Your task to perform on an android device: turn off location history Image 0: 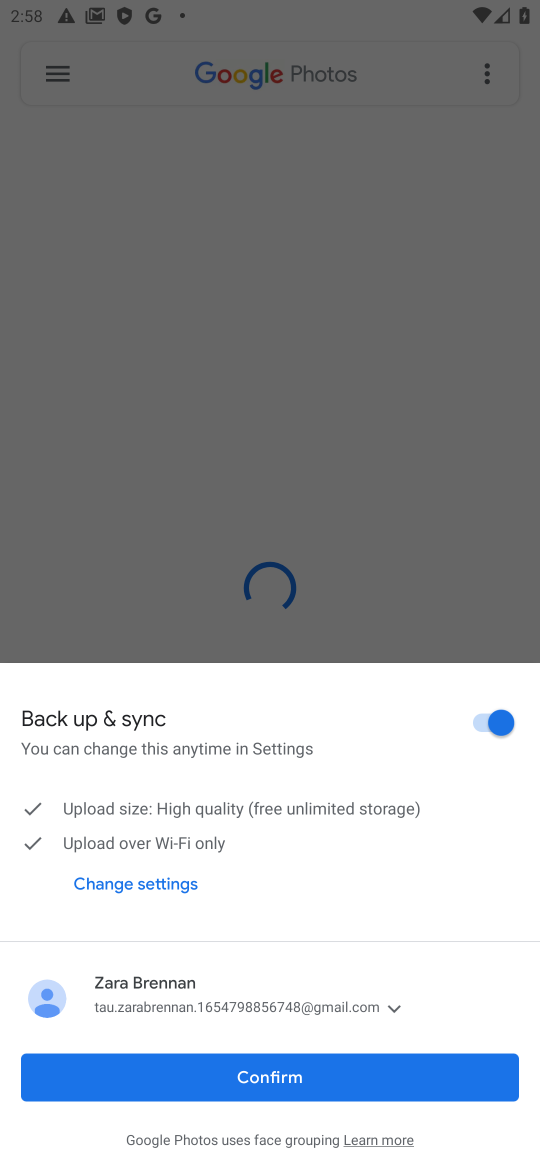
Step 0: press back button
Your task to perform on an android device: turn off location history Image 1: 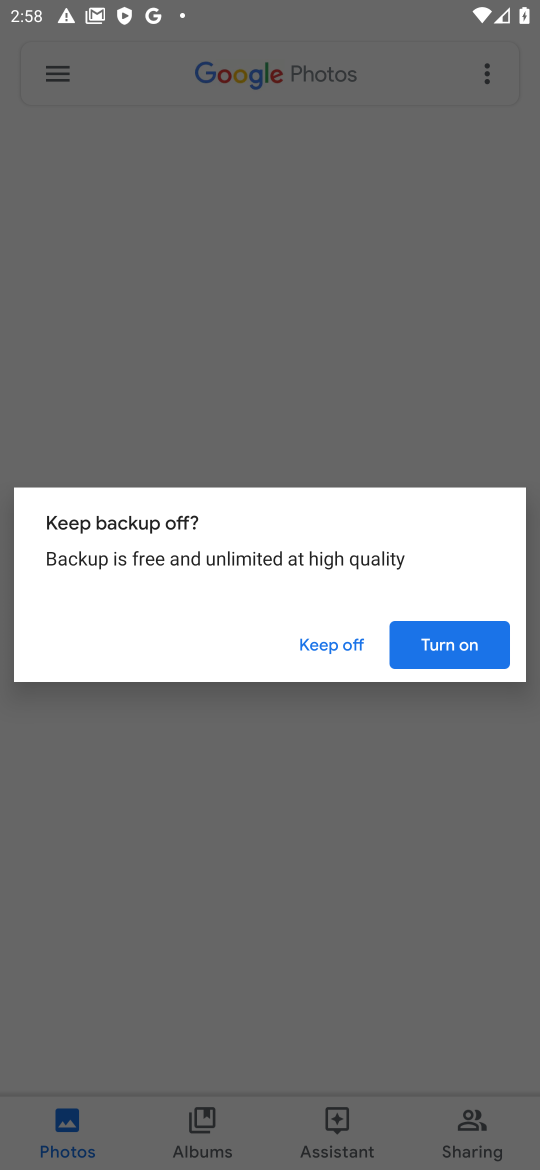
Step 1: press home button
Your task to perform on an android device: turn off location history Image 2: 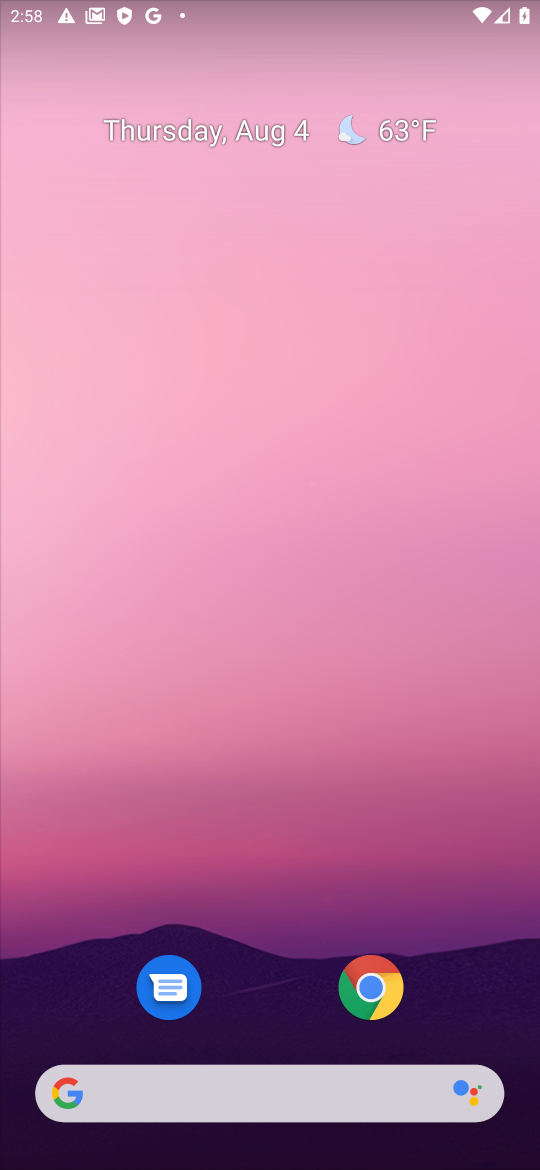
Step 2: press home button
Your task to perform on an android device: turn off location history Image 3: 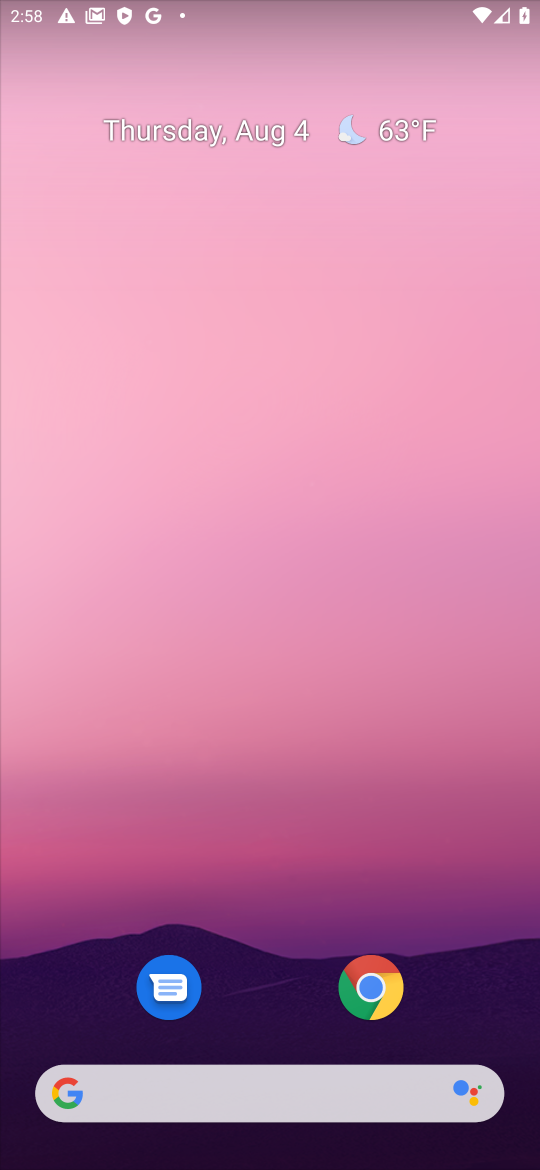
Step 3: drag from (258, 689) to (264, 102)
Your task to perform on an android device: turn off location history Image 4: 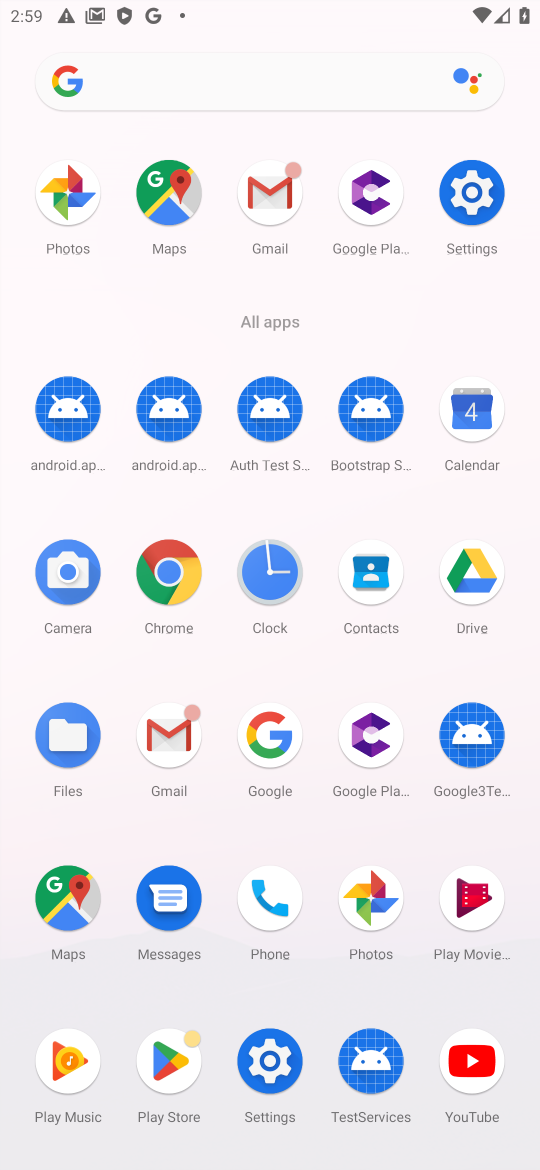
Step 4: click (261, 1073)
Your task to perform on an android device: turn off location history Image 5: 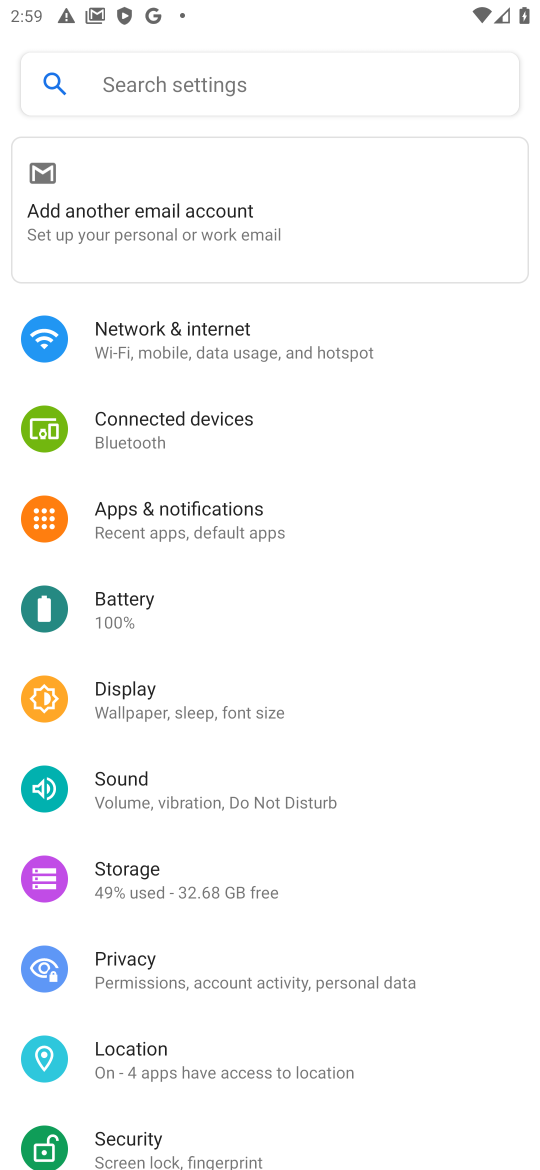
Step 5: click (122, 1049)
Your task to perform on an android device: turn off location history Image 6: 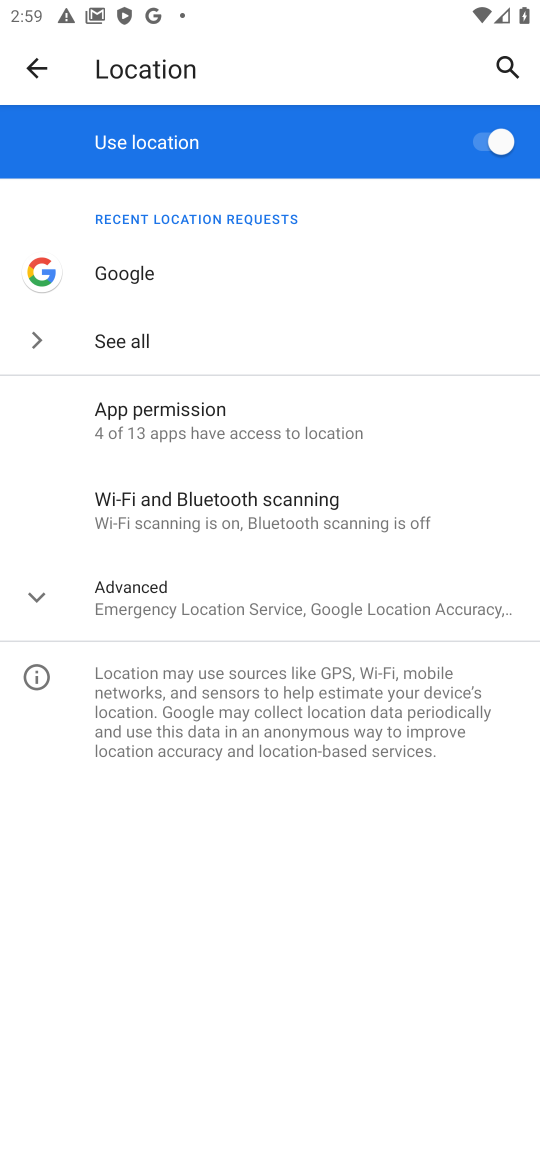
Step 6: click (166, 581)
Your task to perform on an android device: turn off location history Image 7: 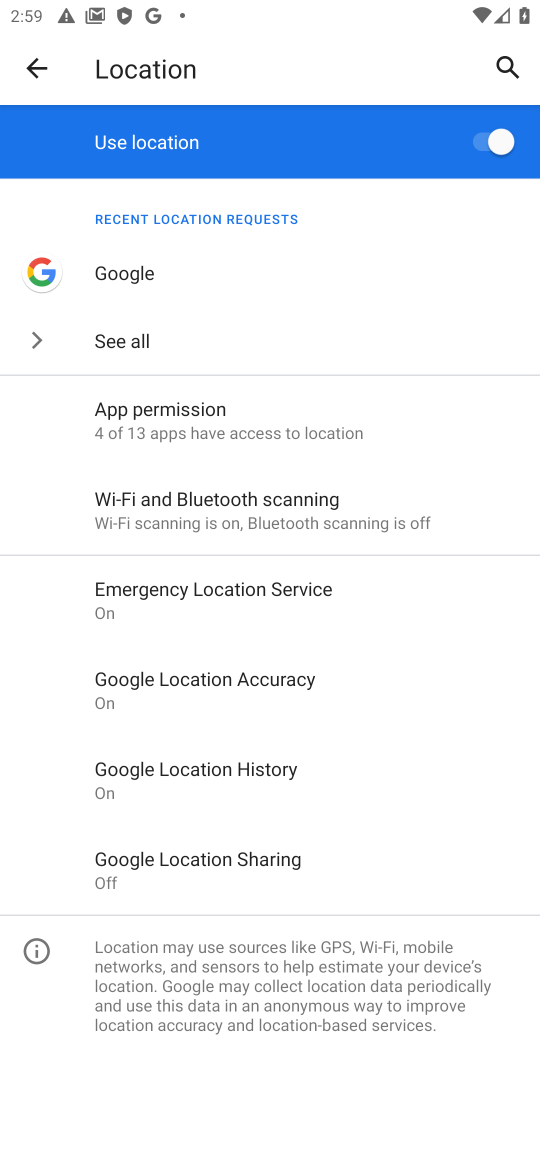
Step 7: click (170, 777)
Your task to perform on an android device: turn off location history Image 8: 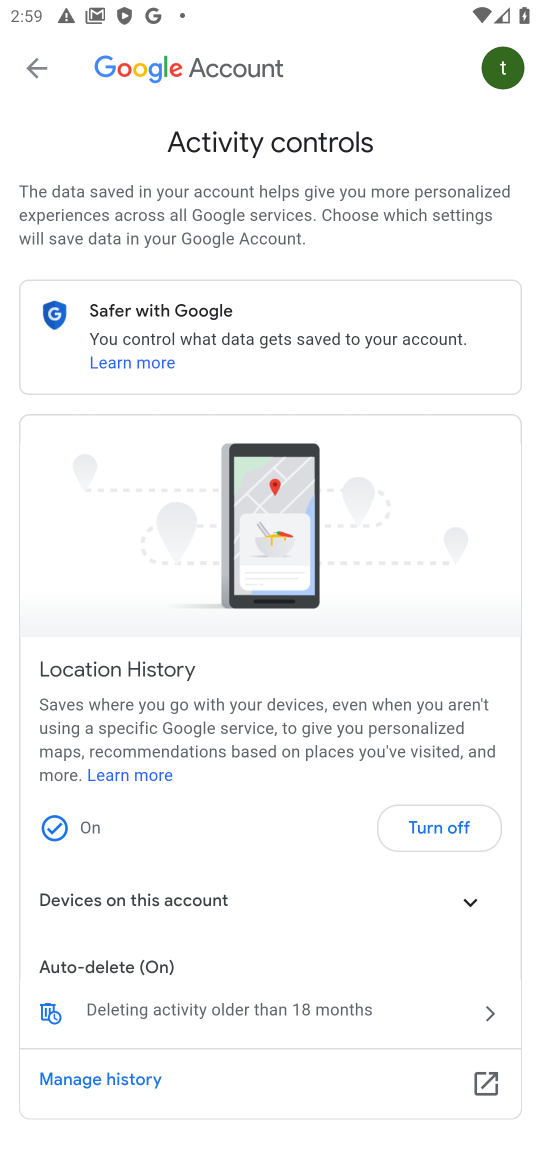
Step 8: click (425, 828)
Your task to perform on an android device: turn off location history Image 9: 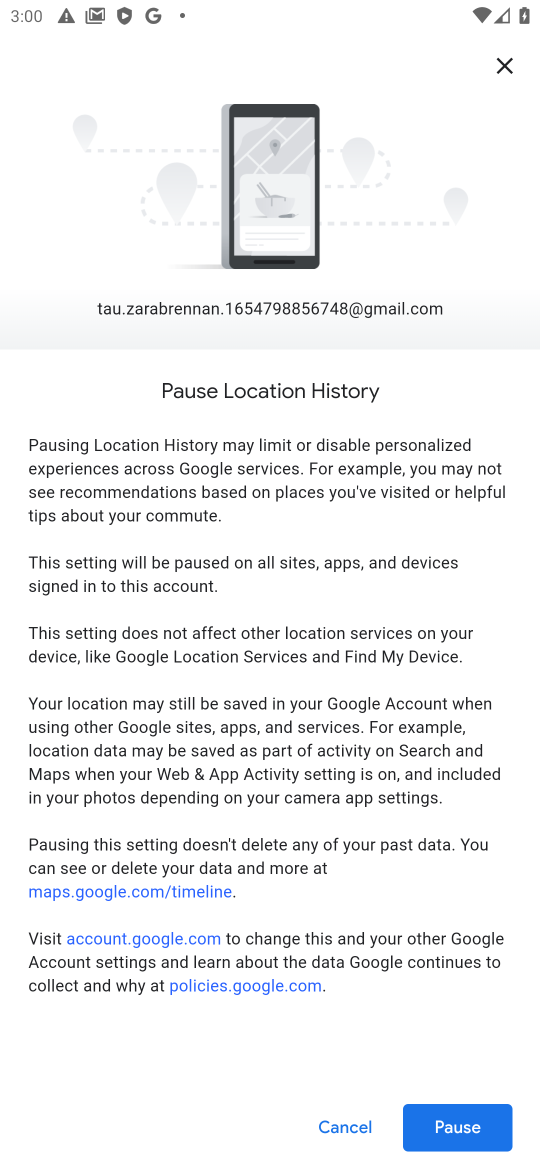
Step 9: click (457, 1118)
Your task to perform on an android device: turn off location history Image 10: 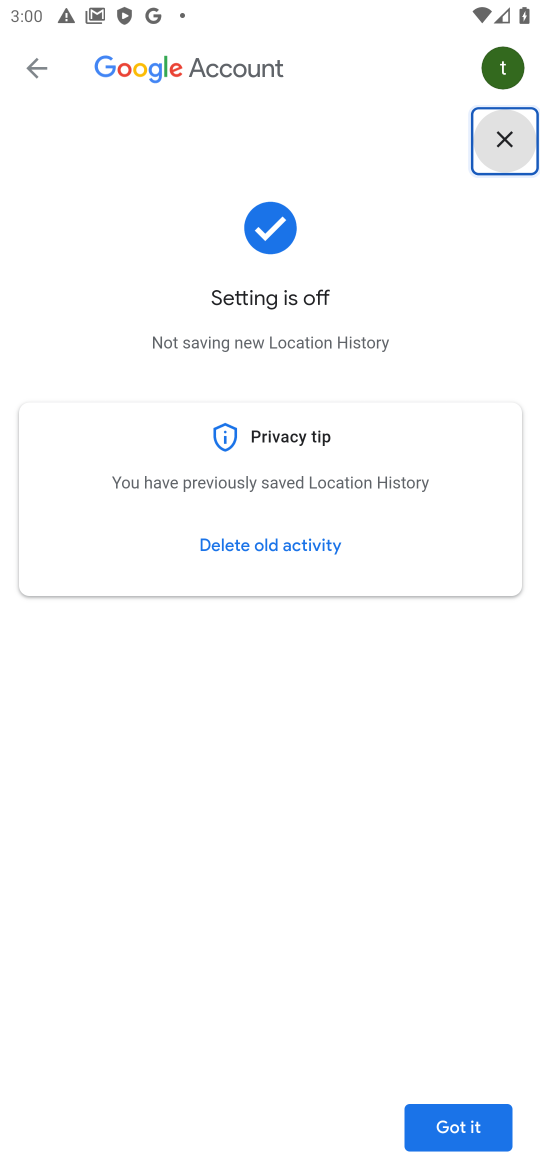
Step 10: click (457, 1118)
Your task to perform on an android device: turn off location history Image 11: 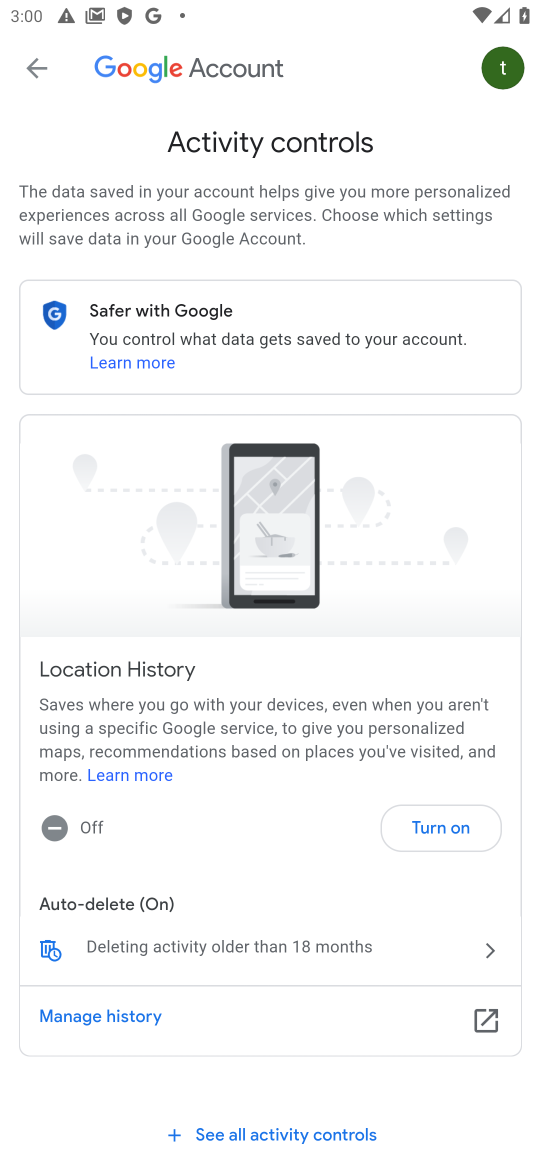
Step 11: task complete